Your task to perform on an android device: Show the shopping cart on bestbuy.com. Search for dell xps on bestbuy.com, select the first entry, add it to the cart, then select checkout. Image 0: 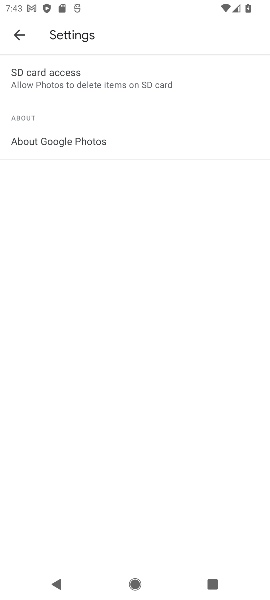
Step 0: press home button
Your task to perform on an android device: Show the shopping cart on bestbuy.com. Search for dell xps on bestbuy.com, select the first entry, add it to the cart, then select checkout. Image 1: 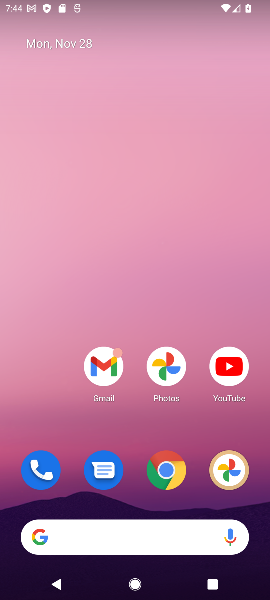
Step 1: click (164, 474)
Your task to perform on an android device: Show the shopping cart on bestbuy.com. Search for dell xps on bestbuy.com, select the first entry, add it to the cart, then select checkout. Image 2: 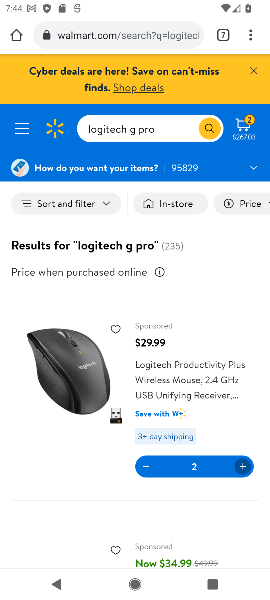
Step 2: click (99, 31)
Your task to perform on an android device: Show the shopping cart on bestbuy.com. Search for dell xps on bestbuy.com, select the first entry, add it to the cart, then select checkout. Image 3: 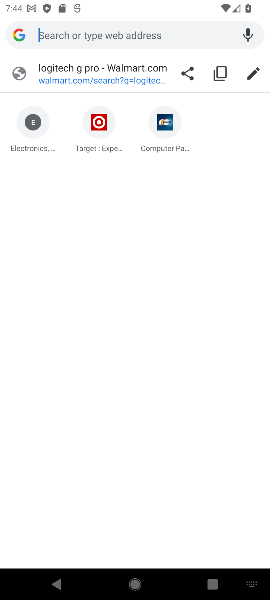
Step 3: type "bestbuy.com"
Your task to perform on an android device: Show the shopping cart on bestbuy.com. Search for dell xps on bestbuy.com, select the first entry, add it to the cart, then select checkout. Image 4: 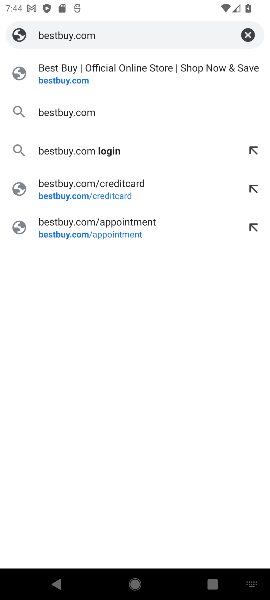
Step 4: click (65, 86)
Your task to perform on an android device: Show the shopping cart on bestbuy.com. Search for dell xps on bestbuy.com, select the first entry, add it to the cart, then select checkout. Image 5: 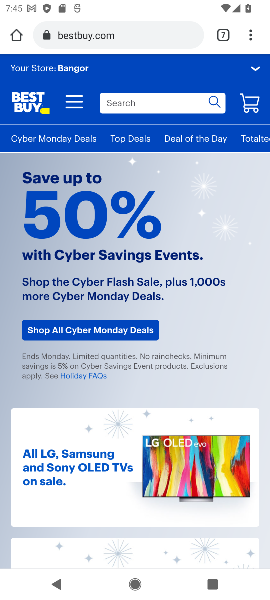
Step 5: click (249, 108)
Your task to perform on an android device: Show the shopping cart on bestbuy.com. Search for dell xps on bestbuy.com, select the first entry, add it to the cart, then select checkout. Image 6: 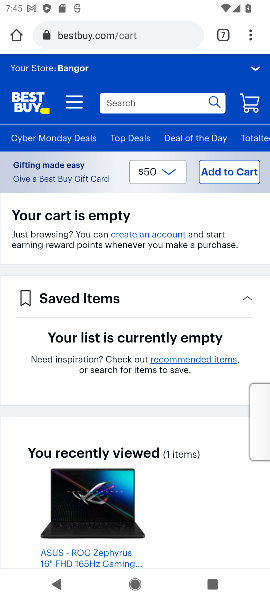
Step 6: click (146, 112)
Your task to perform on an android device: Show the shopping cart on bestbuy.com. Search for dell xps on bestbuy.com, select the first entry, add it to the cart, then select checkout. Image 7: 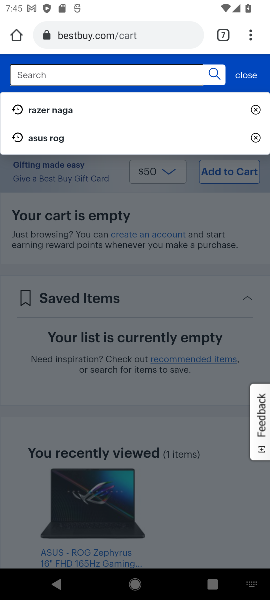
Step 7: type "dell xps "
Your task to perform on an android device: Show the shopping cart on bestbuy.com. Search for dell xps on bestbuy.com, select the first entry, add it to the cart, then select checkout. Image 8: 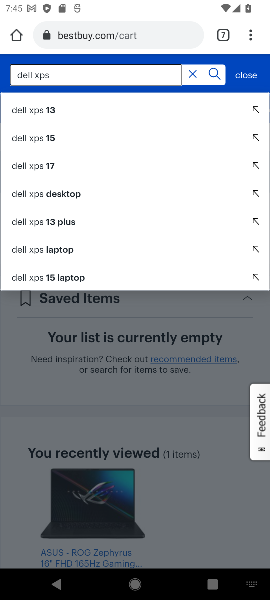
Step 8: click (45, 110)
Your task to perform on an android device: Show the shopping cart on bestbuy.com. Search for dell xps on bestbuy.com, select the first entry, add it to the cart, then select checkout. Image 9: 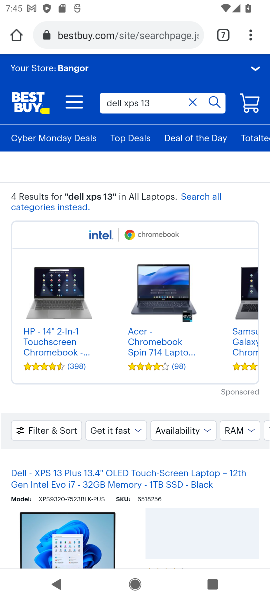
Step 9: drag from (126, 480) to (148, 215)
Your task to perform on an android device: Show the shopping cart on bestbuy.com. Search for dell xps on bestbuy.com, select the first entry, add it to the cart, then select checkout. Image 10: 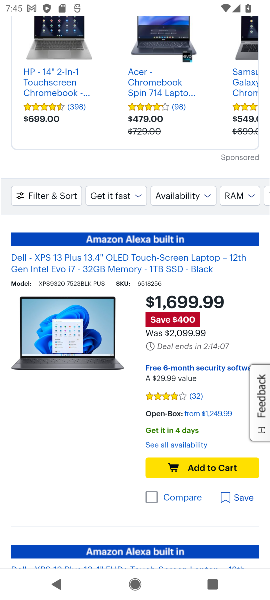
Step 10: click (203, 471)
Your task to perform on an android device: Show the shopping cart on bestbuy.com. Search for dell xps on bestbuy.com, select the first entry, add it to the cart, then select checkout. Image 11: 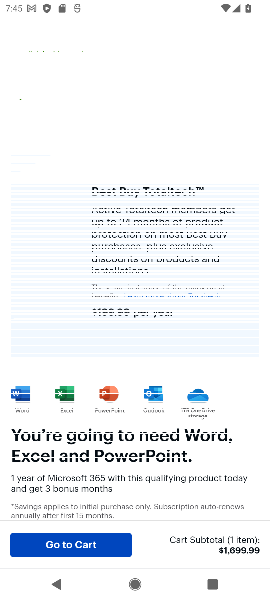
Step 11: click (68, 543)
Your task to perform on an android device: Show the shopping cart on bestbuy.com. Search for dell xps on bestbuy.com, select the first entry, add it to the cart, then select checkout. Image 12: 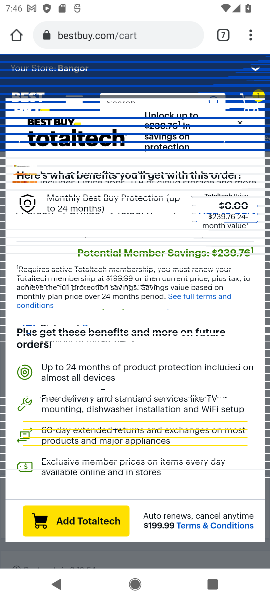
Step 12: click (237, 131)
Your task to perform on an android device: Show the shopping cart on bestbuy.com. Search for dell xps on bestbuy.com, select the first entry, add it to the cart, then select checkout. Image 13: 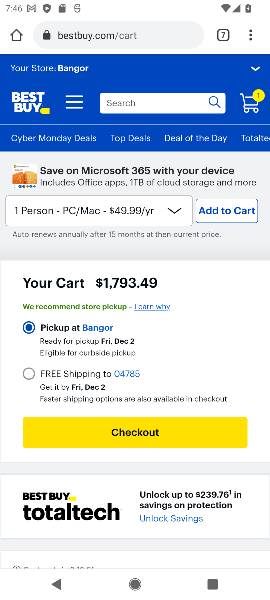
Step 13: click (139, 435)
Your task to perform on an android device: Show the shopping cart on bestbuy.com. Search for dell xps on bestbuy.com, select the first entry, add it to the cart, then select checkout. Image 14: 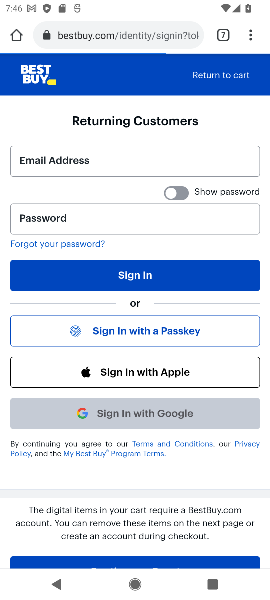
Step 14: task complete